Your task to perform on an android device: Go to location settings Image 0: 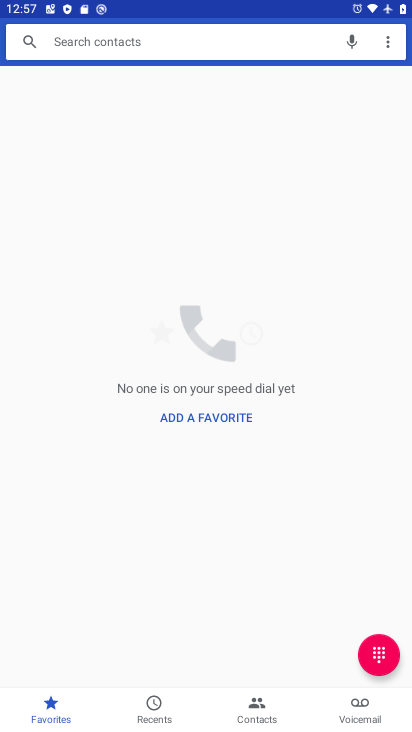
Step 0: press home button
Your task to perform on an android device: Go to location settings Image 1: 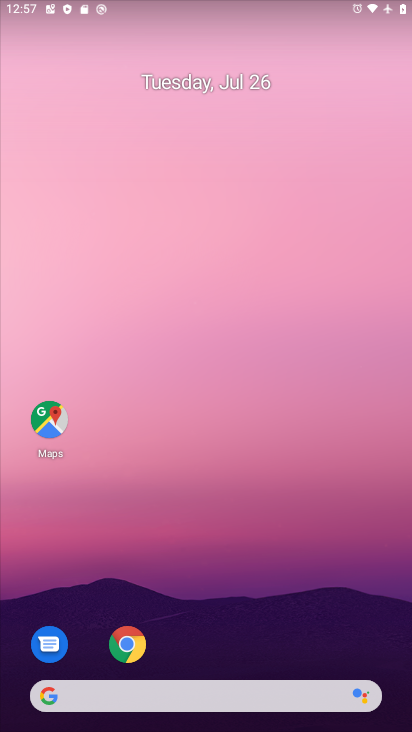
Step 1: drag from (217, 684) to (188, 165)
Your task to perform on an android device: Go to location settings Image 2: 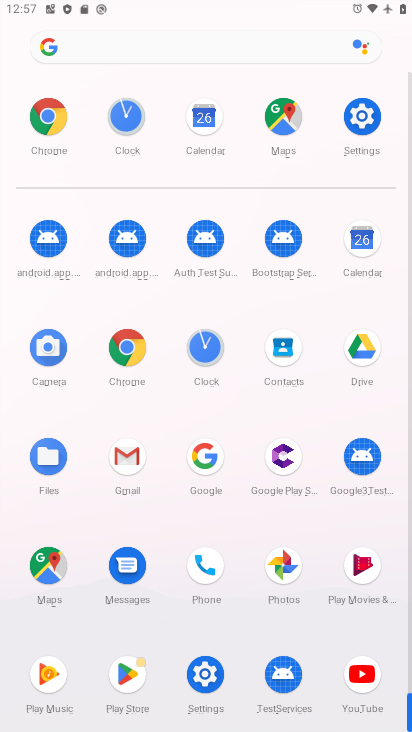
Step 2: click (356, 137)
Your task to perform on an android device: Go to location settings Image 3: 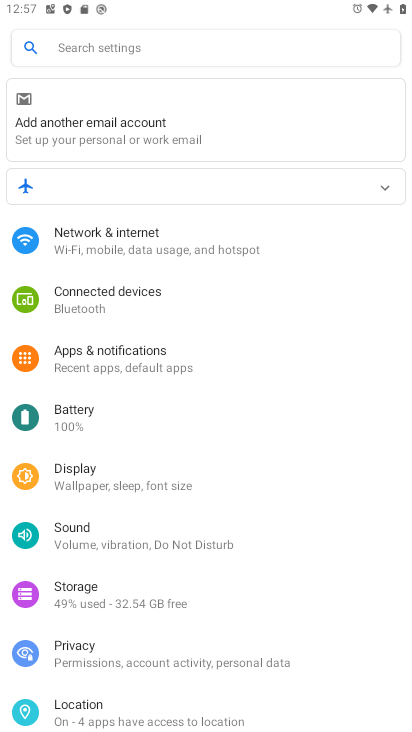
Step 3: drag from (143, 529) to (124, 230)
Your task to perform on an android device: Go to location settings Image 4: 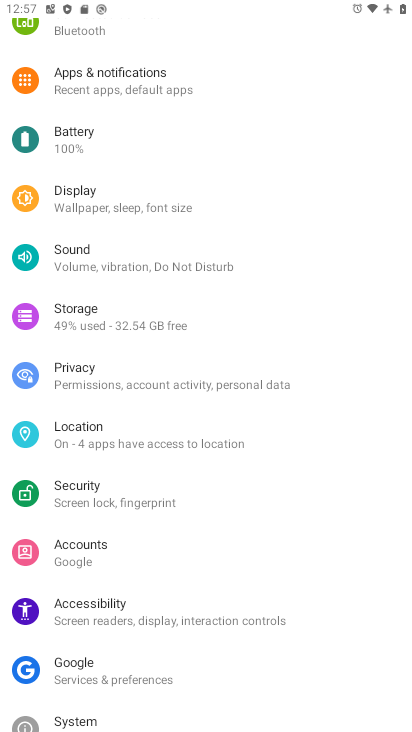
Step 4: click (141, 449)
Your task to perform on an android device: Go to location settings Image 5: 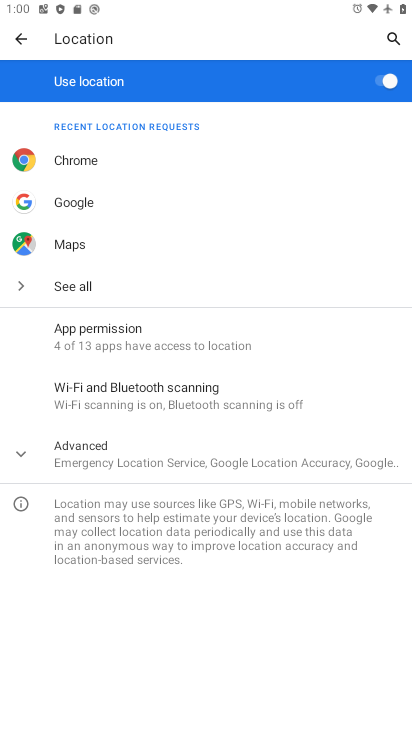
Step 5: task complete